Your task to perform on an android device: turn smart compose on in the gmail app Image 0: 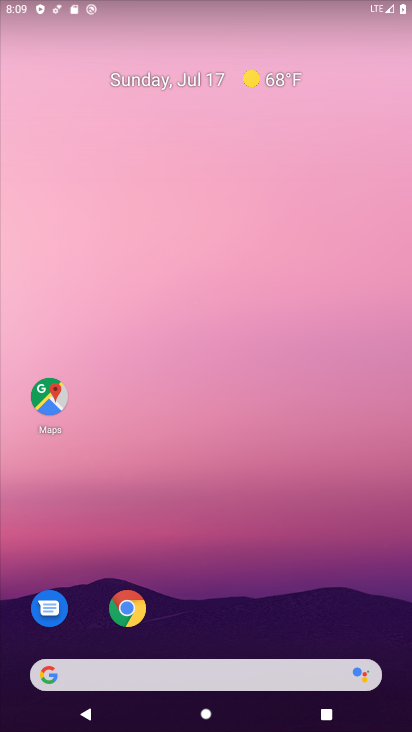
Step 0: drag from (246, 595) to (249, 150)
Your task to perform on an android device: turn smart compose on in the gmail app Image 1: 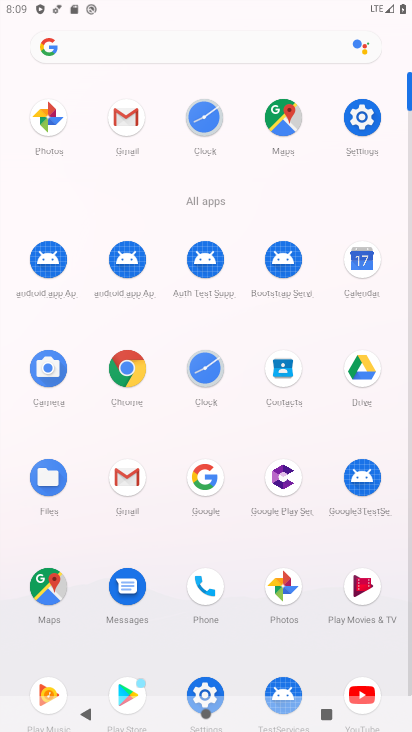
Step 1: click (130, 122)
Your task to perform on an android device: turn smart compose on in the gmail app Image 2: 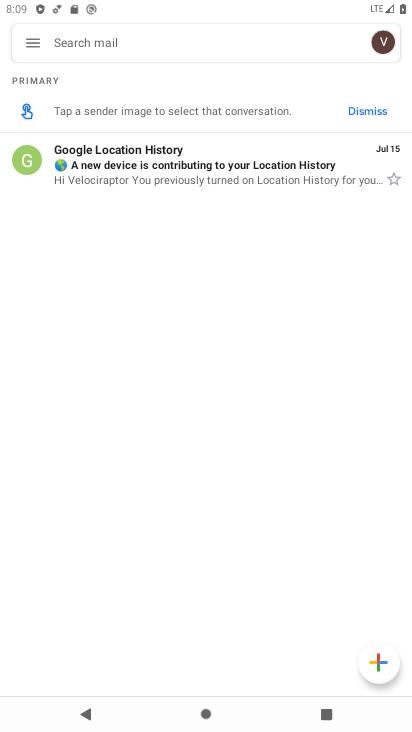
Step 2: click (36, 33)
Your task to perform on an android device: turn smart compose on in the gmail app Image 3: 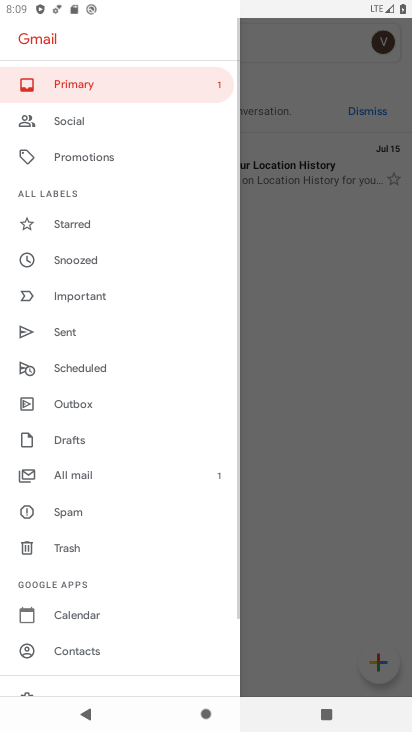
Step 3: drag from (108, 638) to (105, 281)
Your task to perform on an android device: turn smart compose on in the gmail app Image 4: 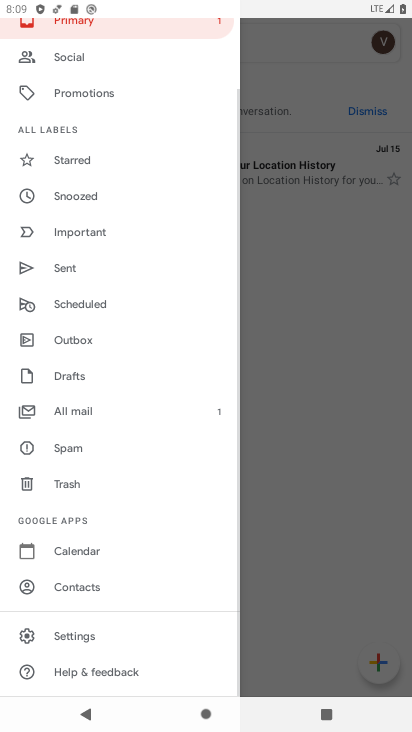
Step 4: click (54, 639)
Your task to perform on an android device: turn smart compose on in the gmail app Image 5: 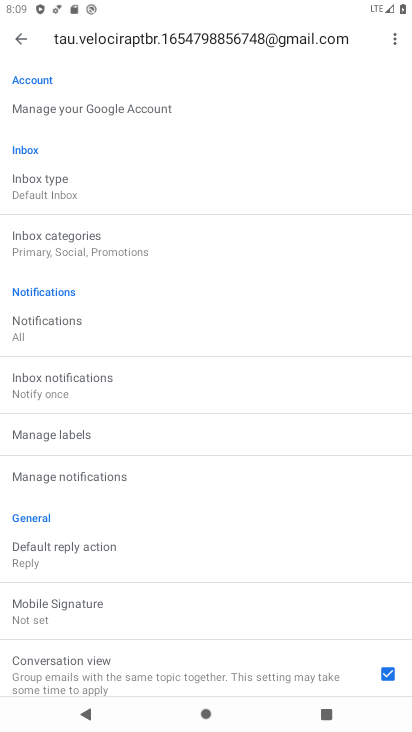
Step 5: task complete